Your task to perform on an android device: Open Android settings Image 0: 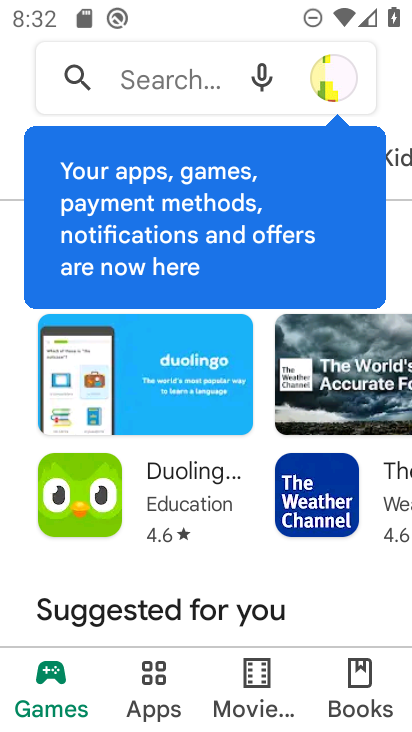
Step 0: press home button
Your task to perform on an android device: Open Android settings Image 1: 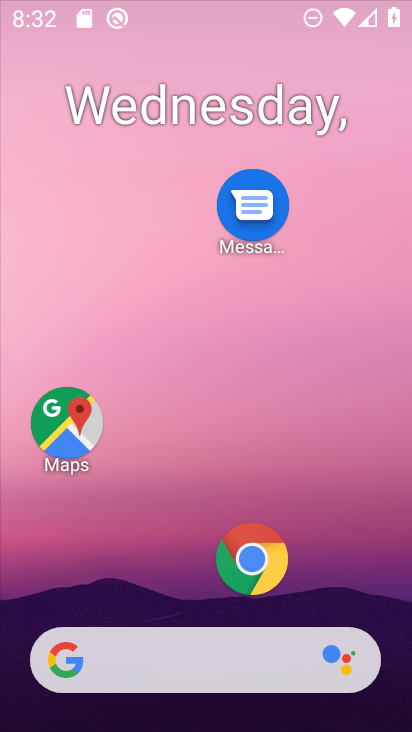
Step 1: drag from (198, 711) to (191, 198)
Your task to perform on an android device: Open Android settings Image 2: 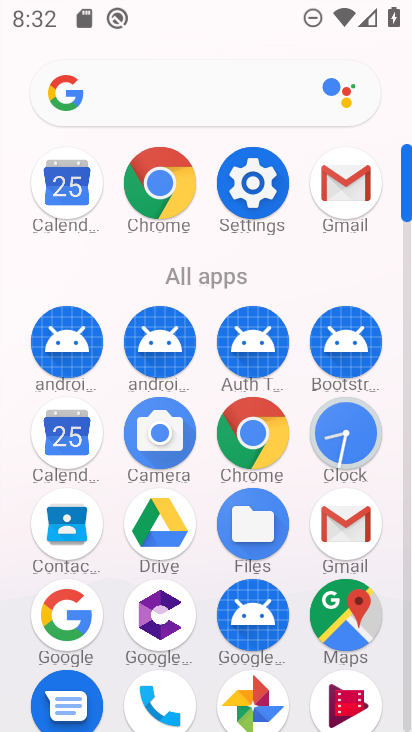
Step 2: click (251, 195)
Your task to perform on an android device: Open Android settings Image 3: 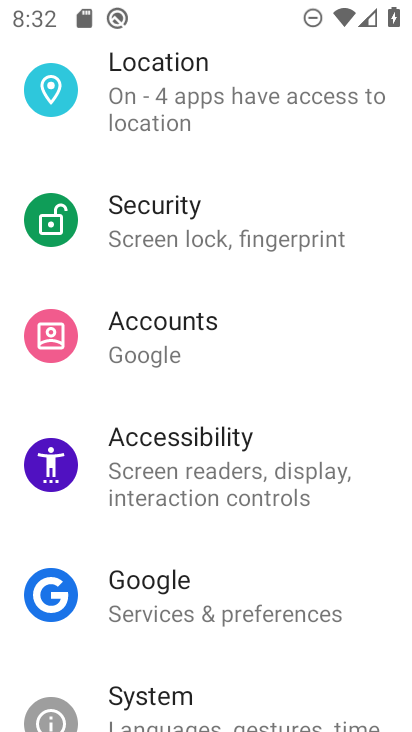
Step 3: drag from (134, 547) to (176, 142)
Your task to perform on an android device: Open Android settings Image 4: 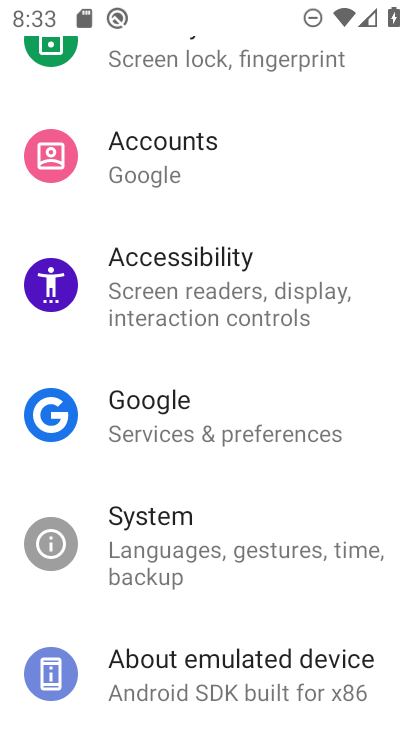
Step 4: click (178, 659)
Your task to perform on an android device: Open Android settings Image 5: 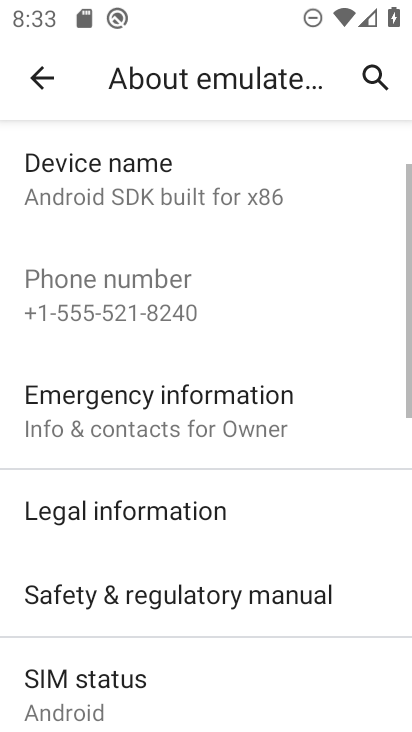
Step 5: drag from (234, 558) to (281, 12)
Your task to perform on an android device: Open Android settings Image 6: 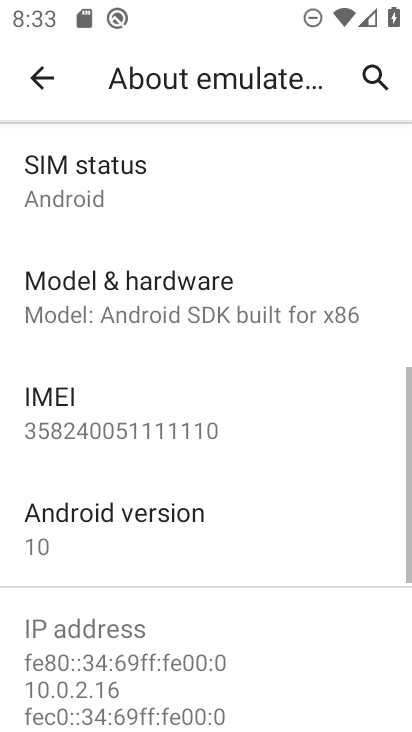
Step 6: click (188, 541)
Your task to perform on an android device: Open Android settings Image 7: 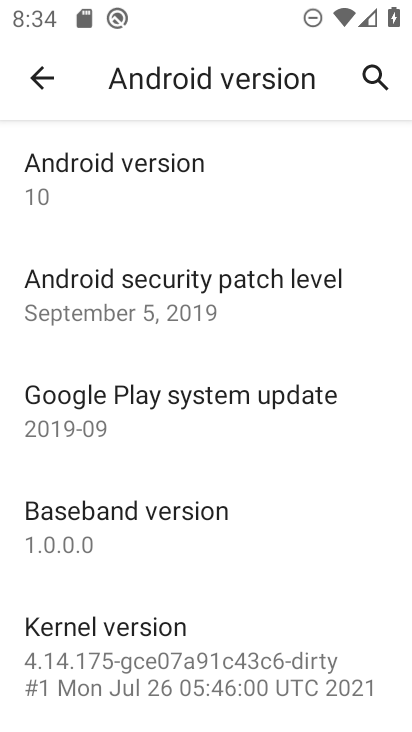
Step 7: task complete